Your task to perform on an android device: open app "Google Calendar" Image 0: 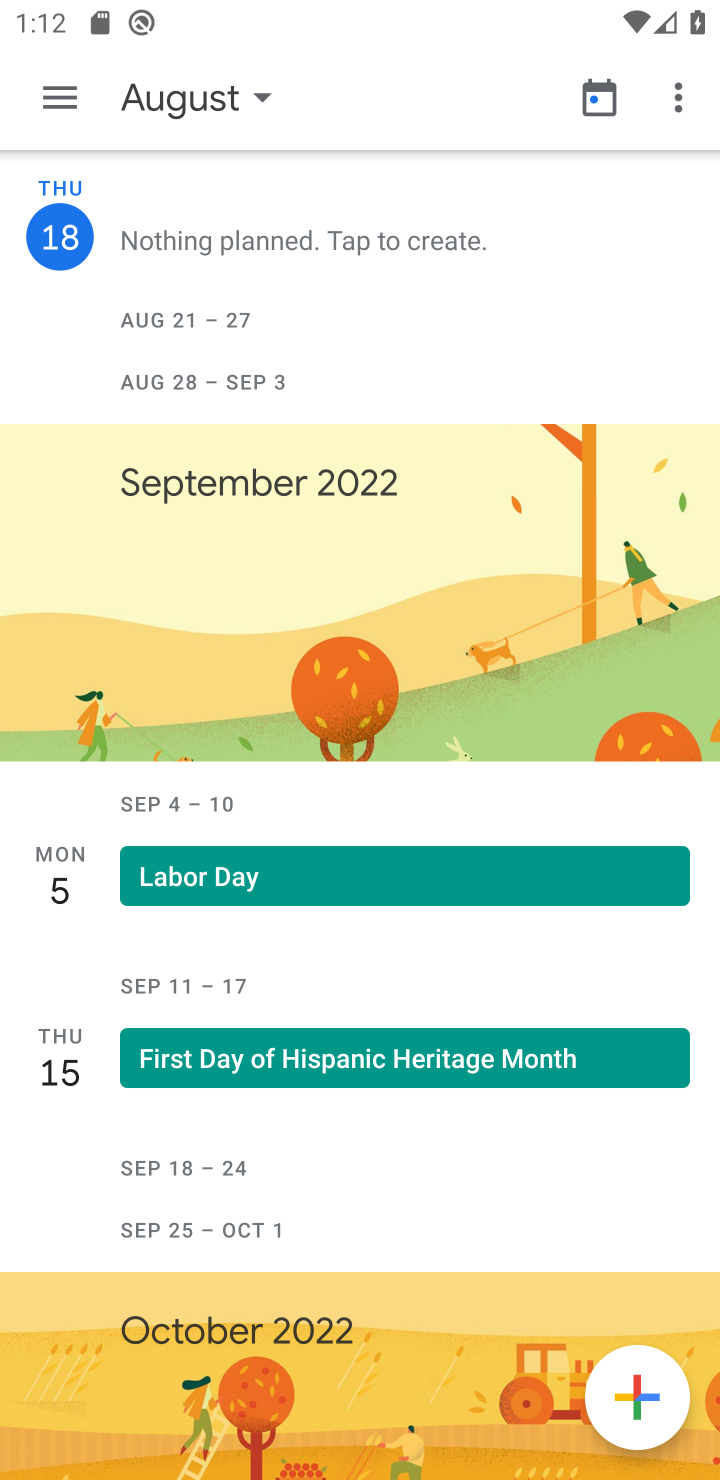
Step 0: press home button
Your task to perform on an android device: open app "Google Calendar" Image 1: 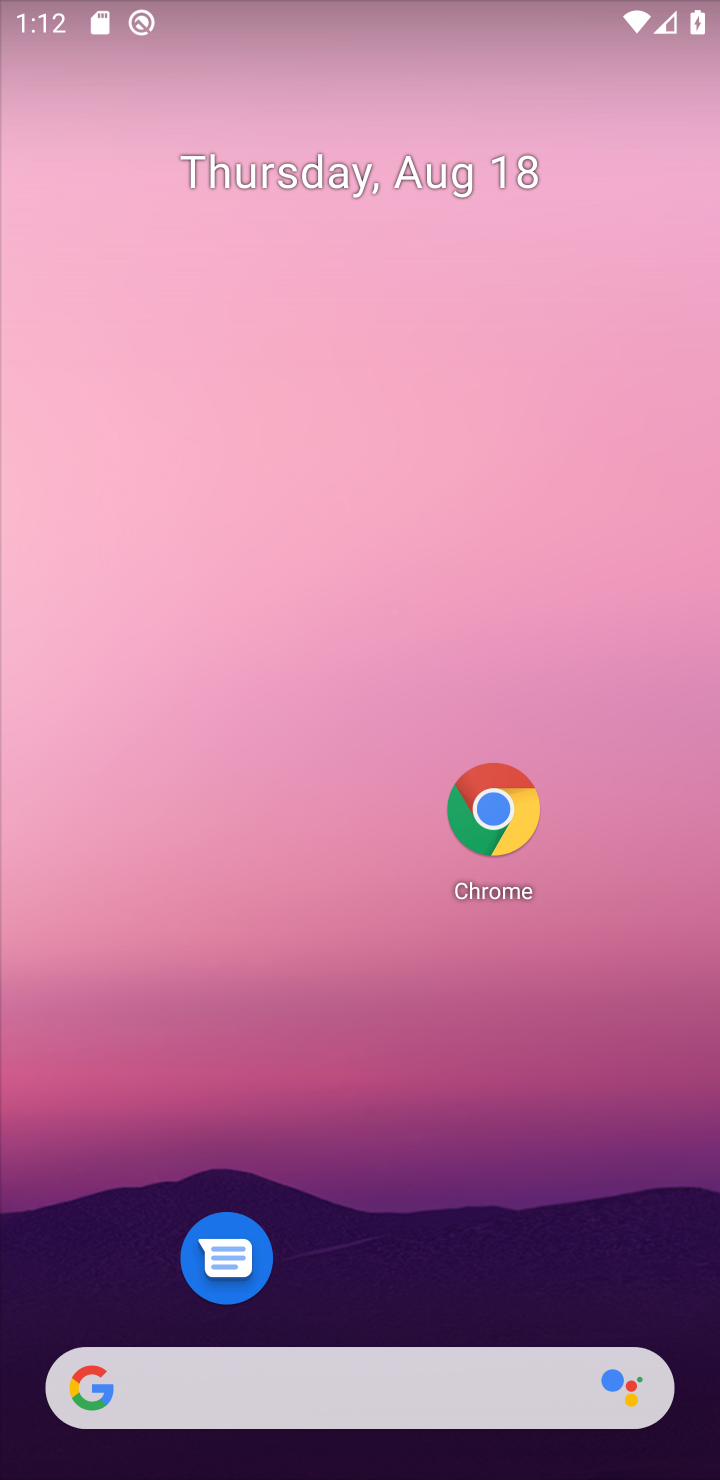
Step 1: drag from (230, 1119) to (241, 373)
Your task to perform on an android device: open app "Google Calendar" Image 2: 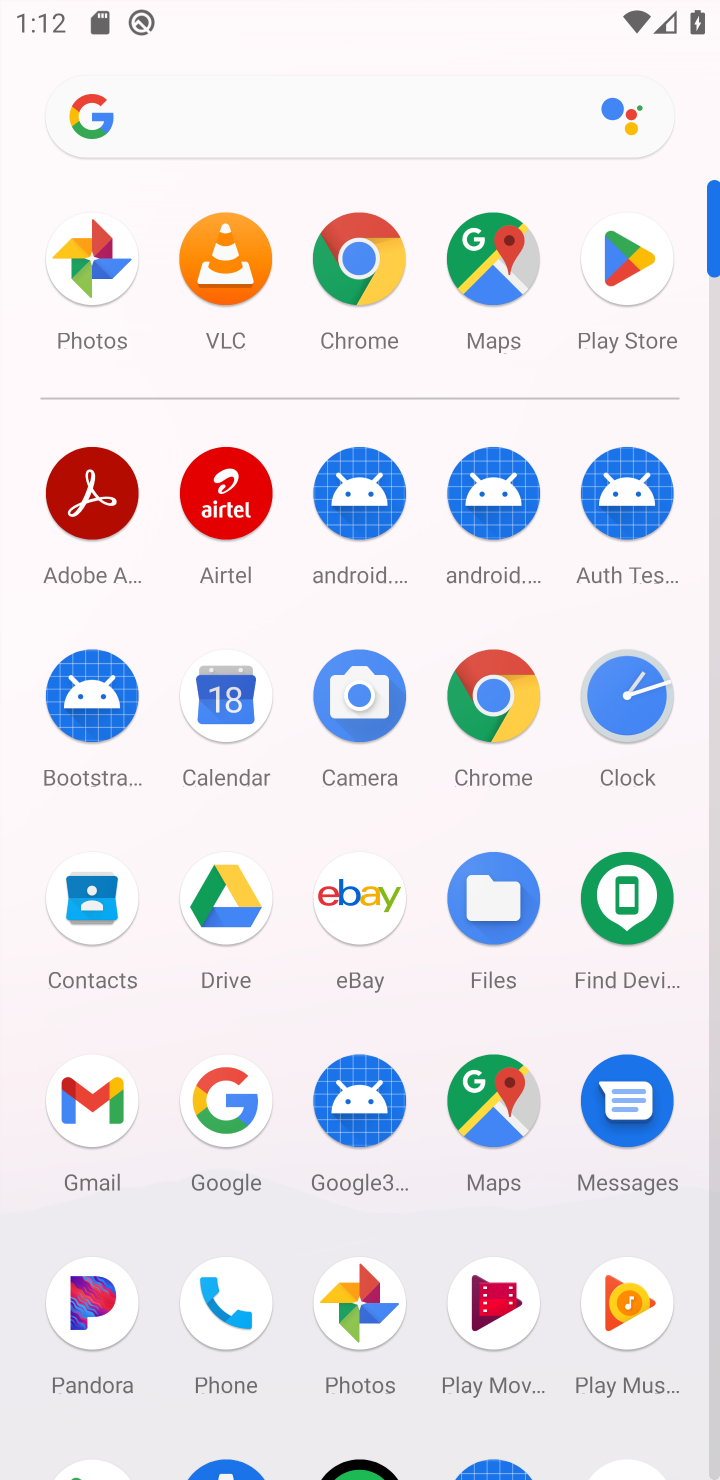
Step 2: click (627, 243)
Your task to perform on an android device: open app "Google Calendar" Image 3: 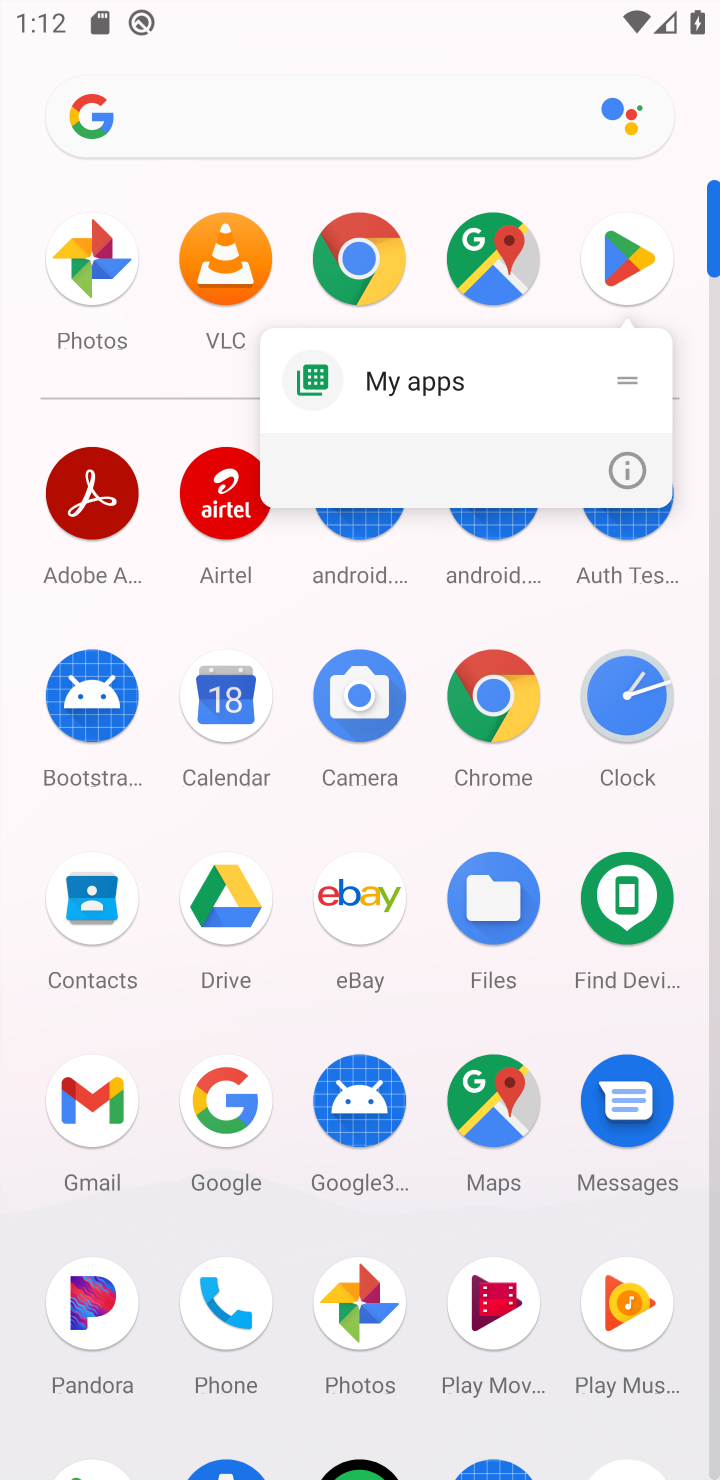
Step 3: click (639, 268)
Your task to perform on an android device: open app "Google Calendar" Image 4: 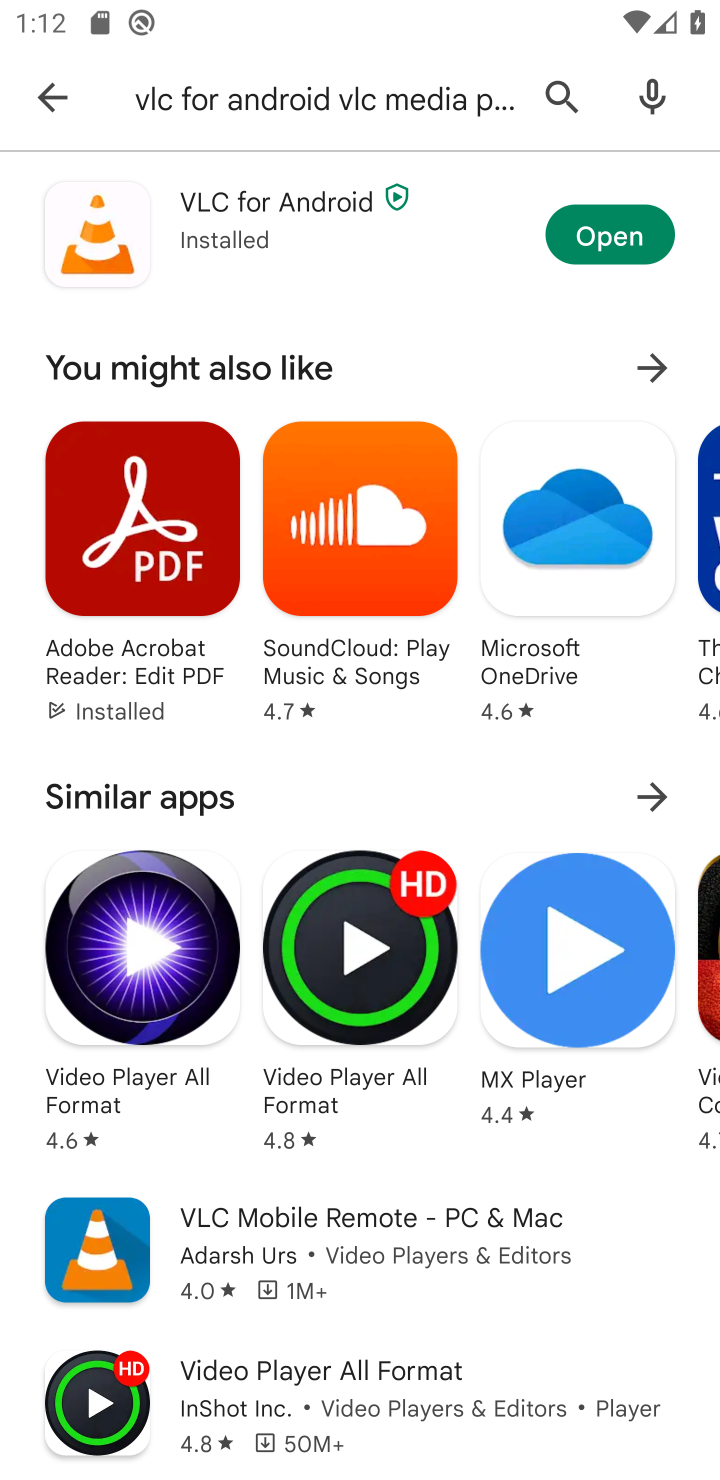
Step 4: click (60, 93)
Your task to perform on an android device: open app "Google Calendar" Image 5: 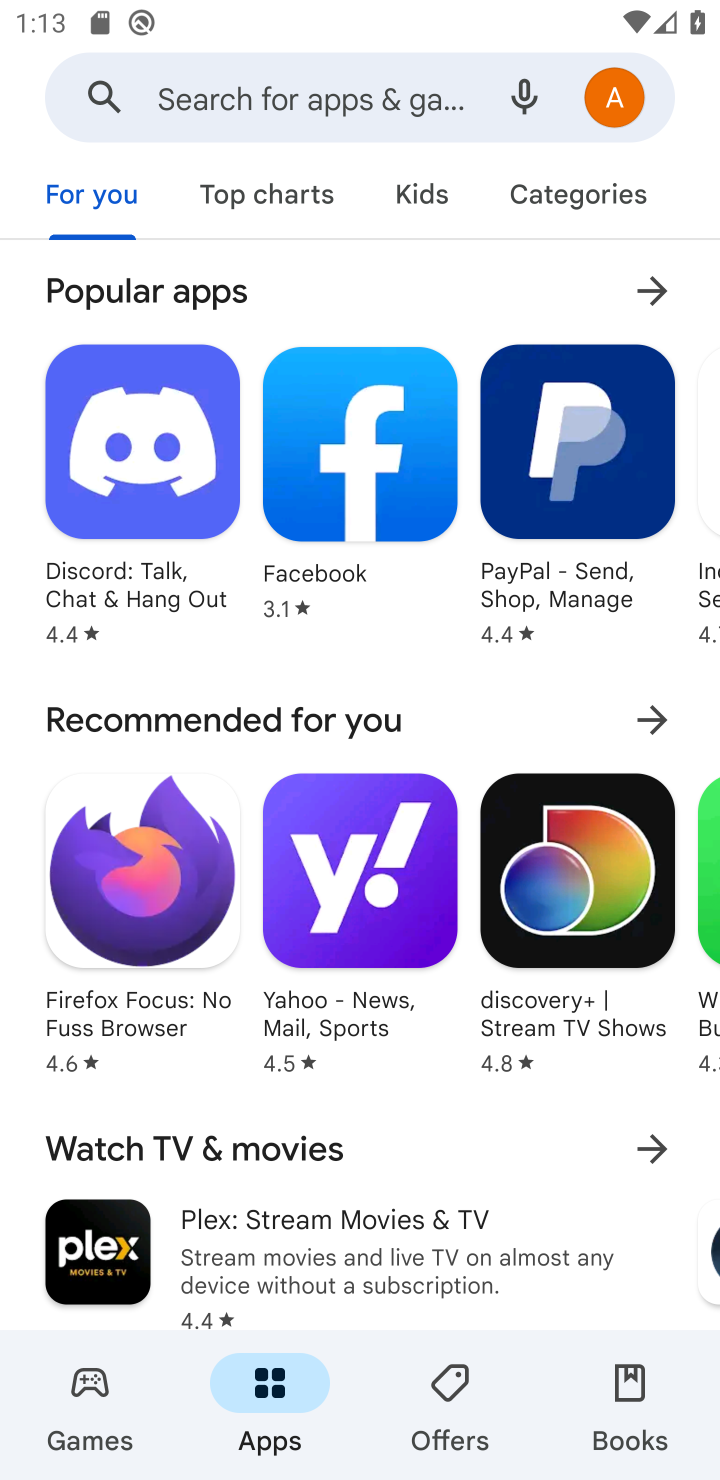
Step 5: click (315, 84)
Your task to perform on an android device: open app "Google Calendar" Image 6: 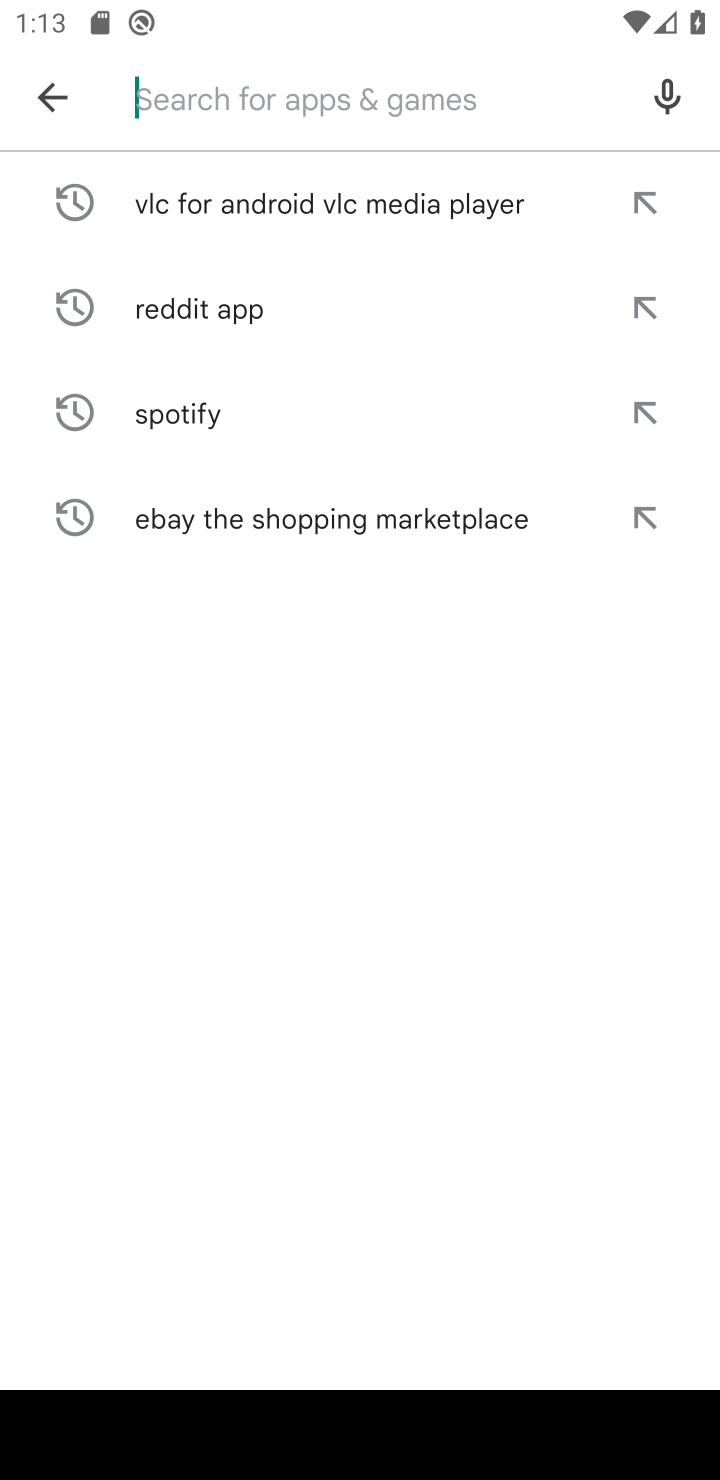
Step 6: type "Google Calendar "
Your task to perform on an android device: open app "Google Calendar" Image 7: 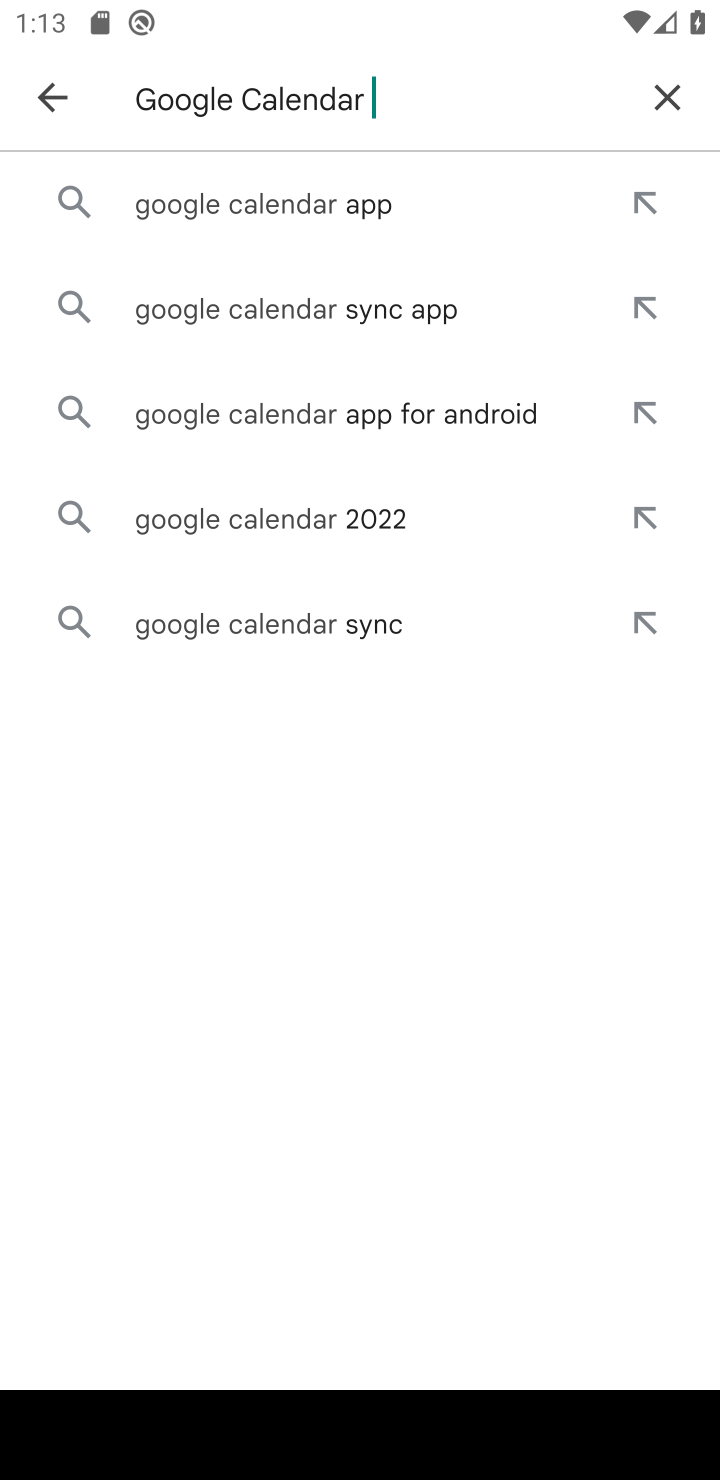
Step 7: click (200, 234)
Your task to perform on an android device: open app "Google Calendar" Image 8: 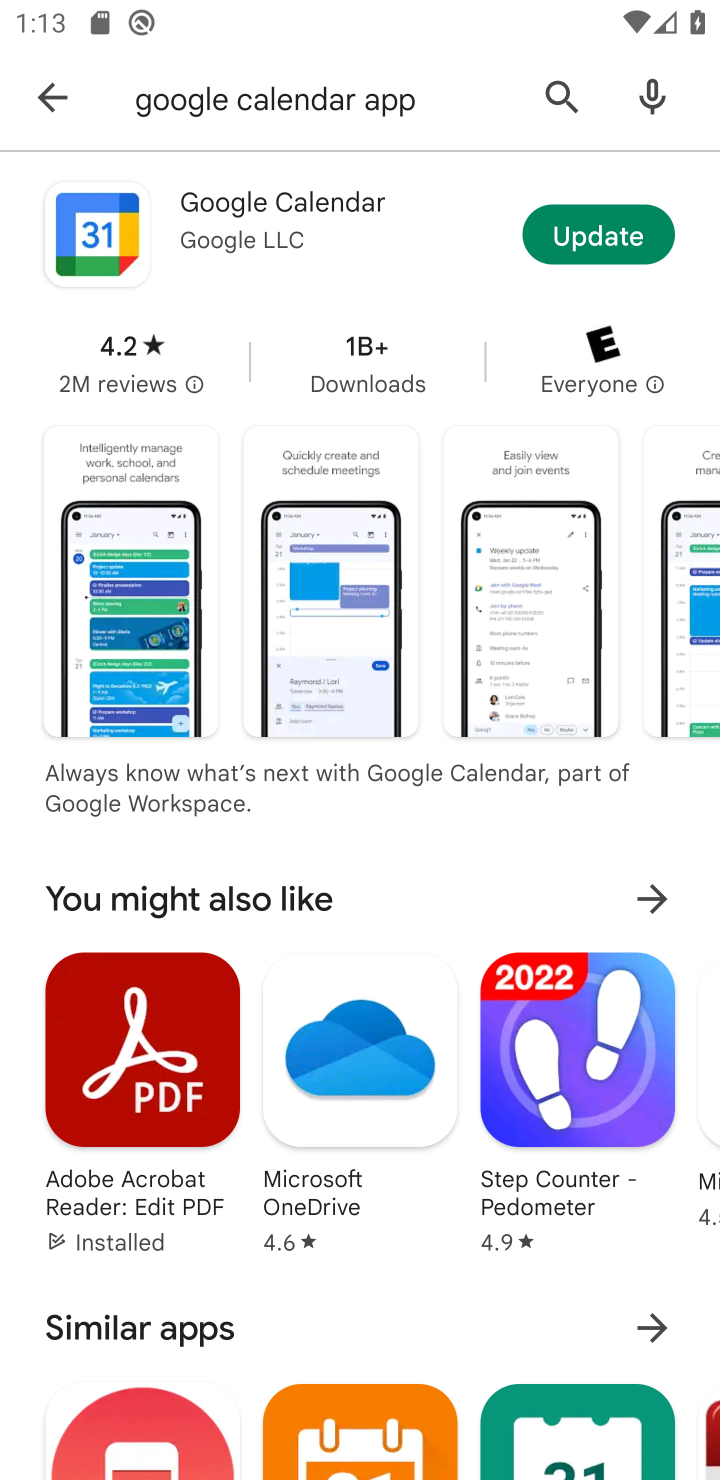
Step 8: click (604, 238)
Your task to perform on an android device: open app "Google Calendar" Image 9: 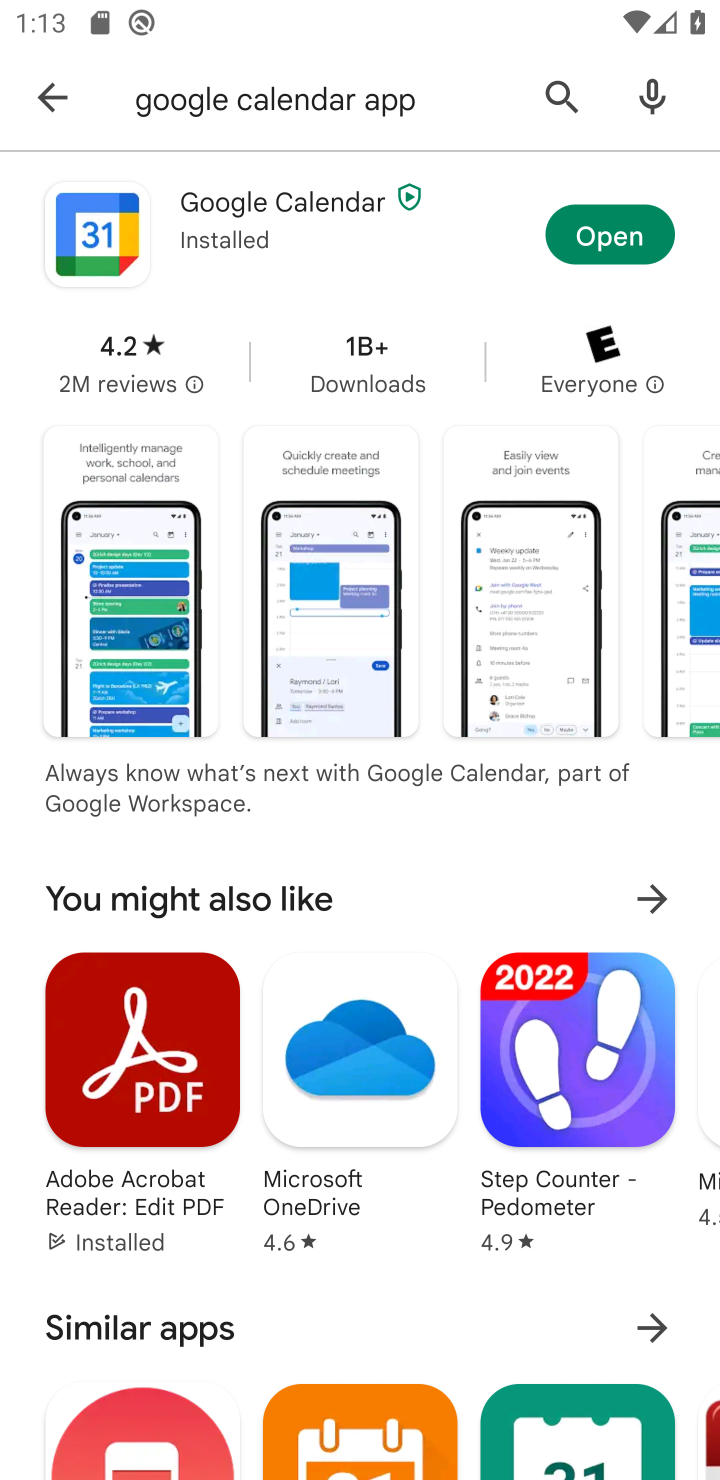
Step 9: task complete